Your task to perform on an android device: Go to Maps Image 0: 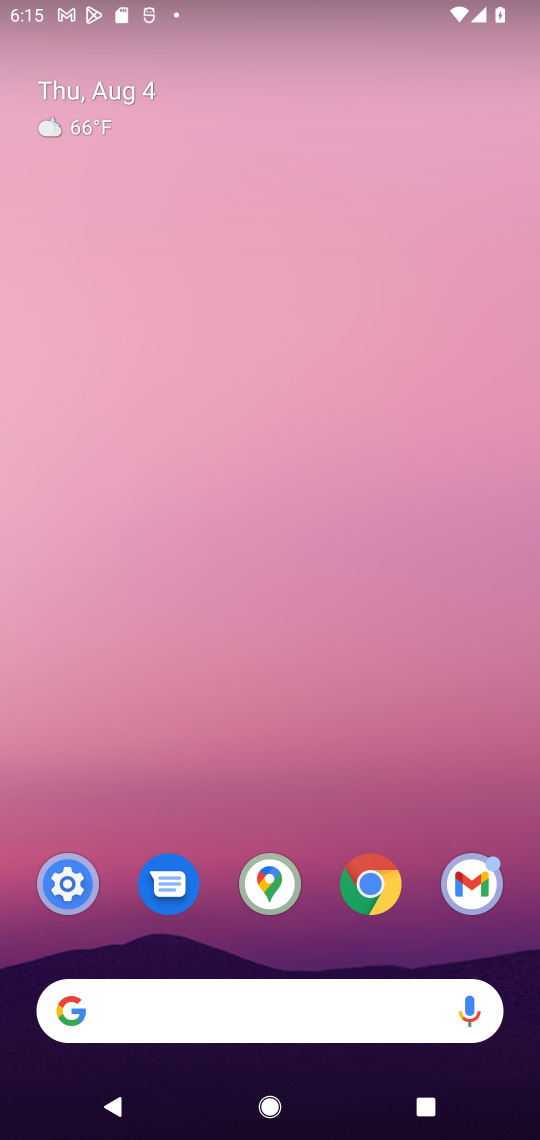
Step 0: click (289, 892)
Your task to perform on an android device: Go to Maps Image 1: 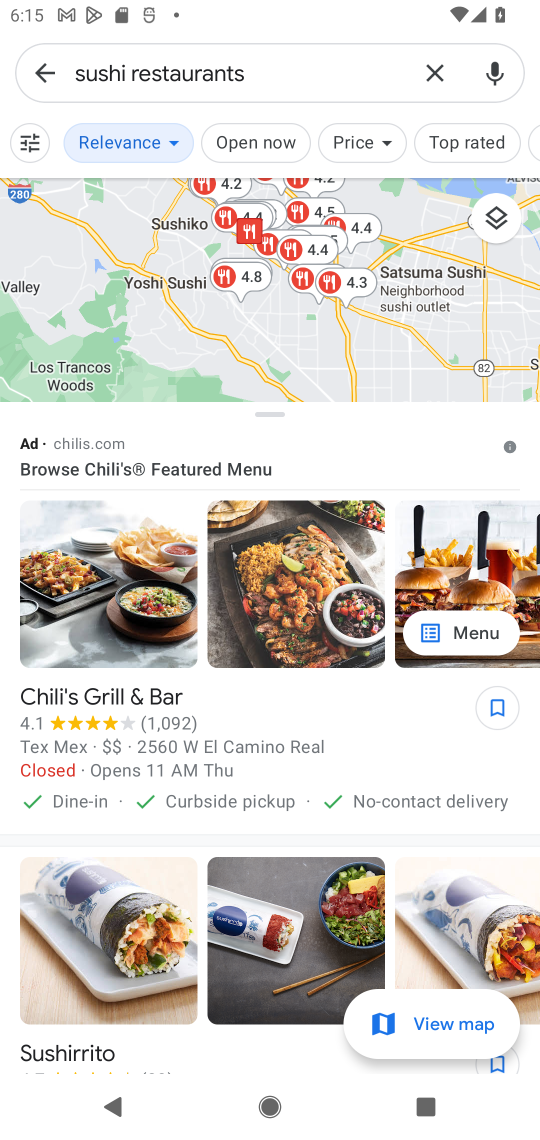
Step 1: task complete